Your task to perform on an android device: turn off sleep mode Image 0: 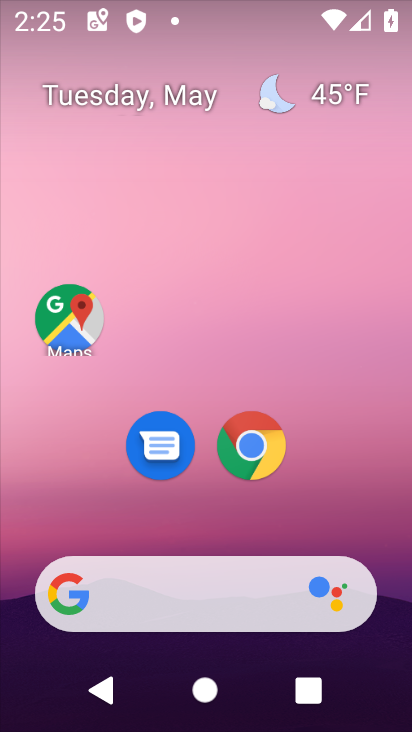
Step 0: drag from (216, 520) to (206, 5)
Your task to perform on an android device: turn off sleep mode Image 1: 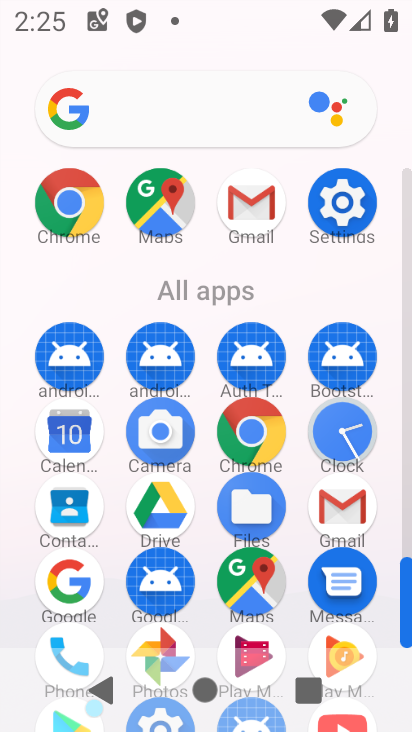
Step 1: click (337, 217)
Your task to perform on an android device: turn off sleep mode Image 2: 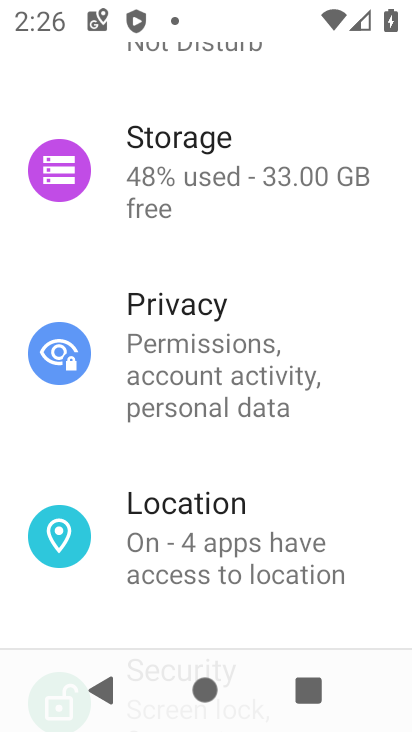
Step 2: task complete